Your task to perform on an android device: Open battery settings Image 0: 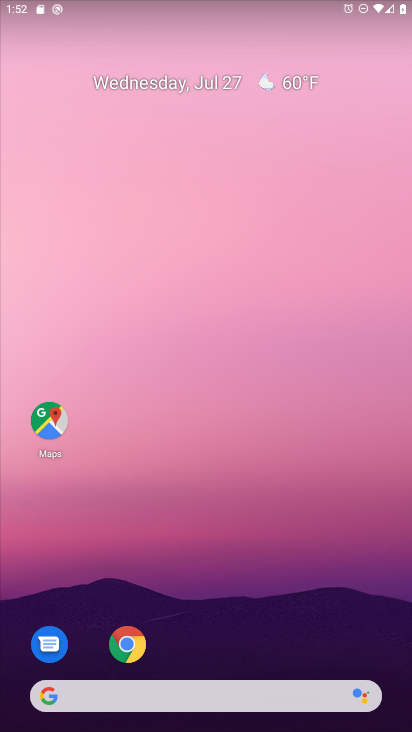
Step 0: drag from (194, 592) to (236, 12)
Your task to perform on an android device: Open battery settings Image 1: 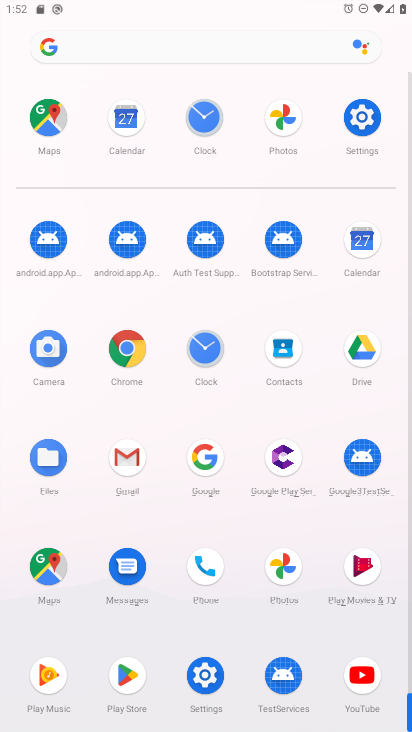
Step 1: click (207, 670)
Your task to perform on an android device: Open battery settings Image 2: 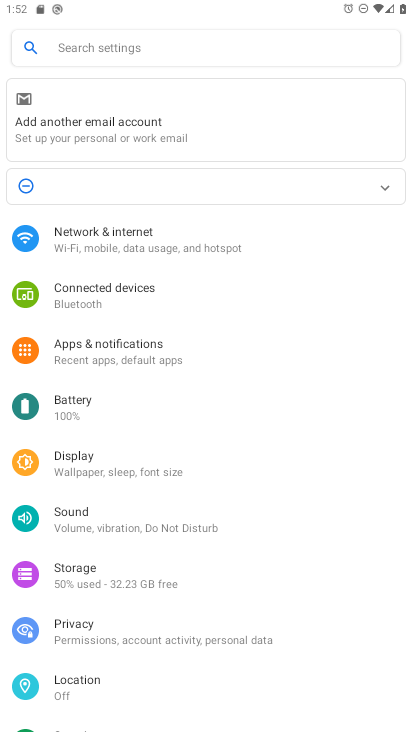
Step 2: drag from (149, 641) to (220, 603)
Your task to perform on an android device: Open battery settings Image 3: 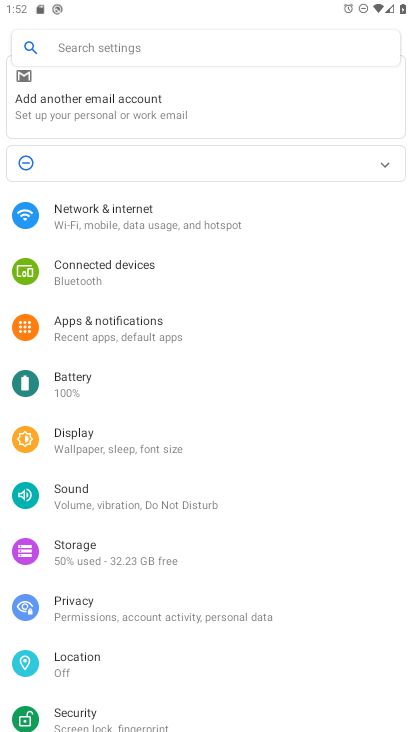
Step 3: click (75, 329)
Your task to perform on an android device: Open battery settings Image 4: 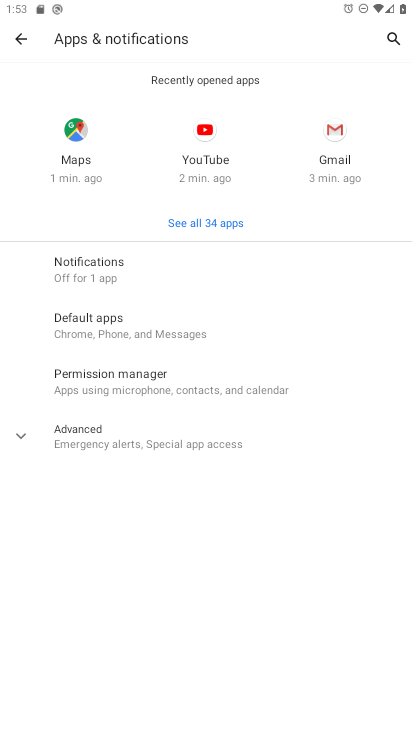
Step 4: click (19, 35)
Your task to perform on an android device: Open battery settings Image 5: 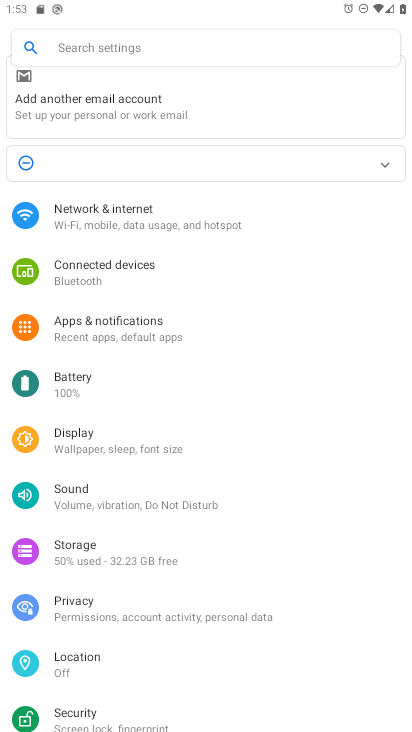
Step 5: click (88, 387)
Your task to perform on an android device: Open battery settings Image 6: 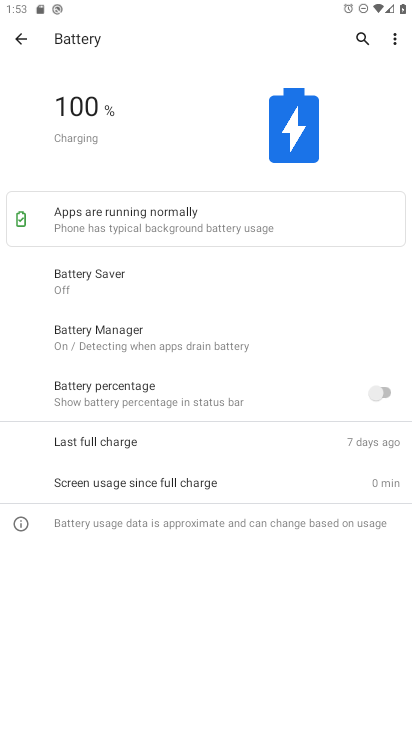
Step 6: task complete